Your task to perform on an android device: star an email in the gmail app Image 0: 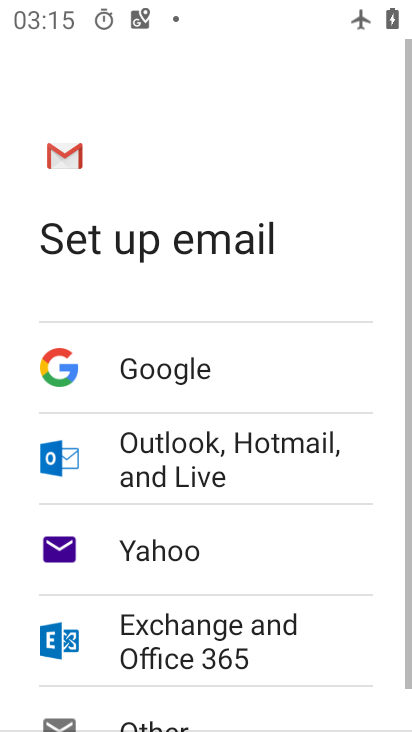
Step 0: press home button
Your task to perform on an android device: star an email in the gmail app Image 1: 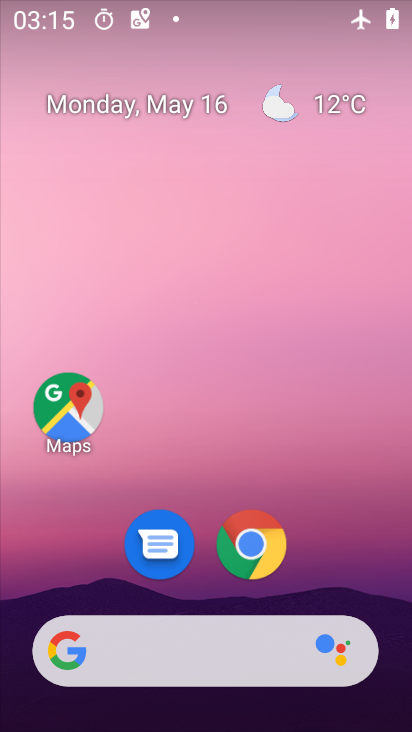
Step 1: drag from (215, 722) to (200, 163)
Your task to perform on an android device: star an email in the gmail app Image 2: 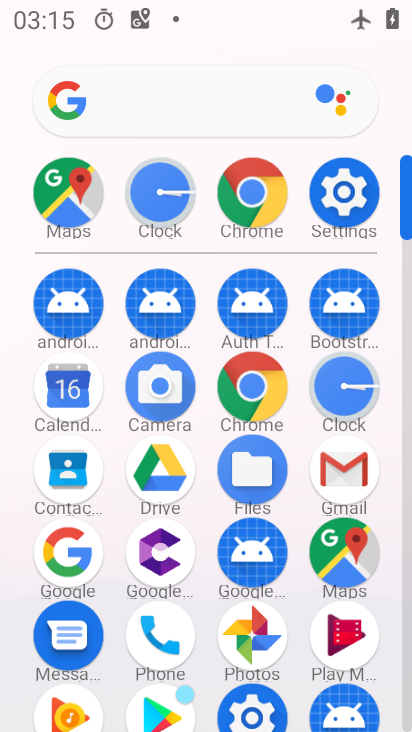
Step 2: click (344, 470)
Your task to perform on an android device: star an email in the gmail app Image 3: 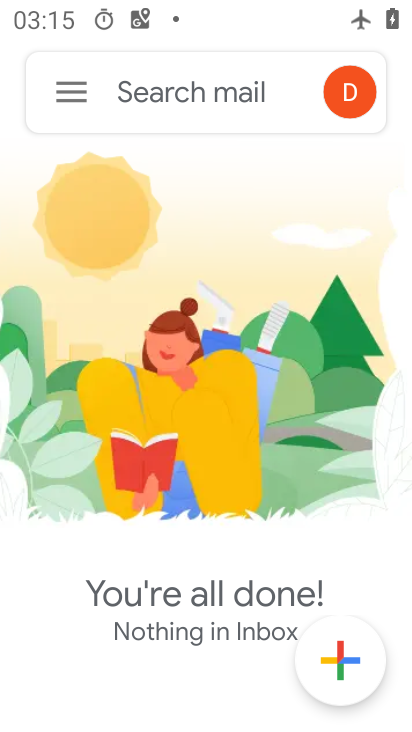
Step 3: task complete